Your task to perform on an android device: check data usage Image 0: 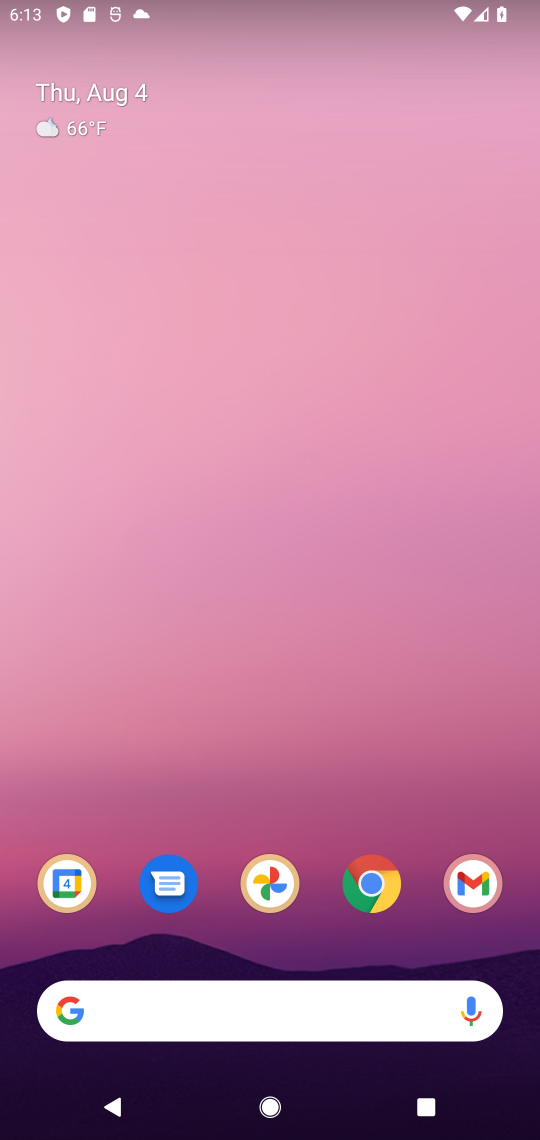
Step 0: drag from (197, 1045) to (355, 35)
Your task to perform on an android device: check data usage Image 1: 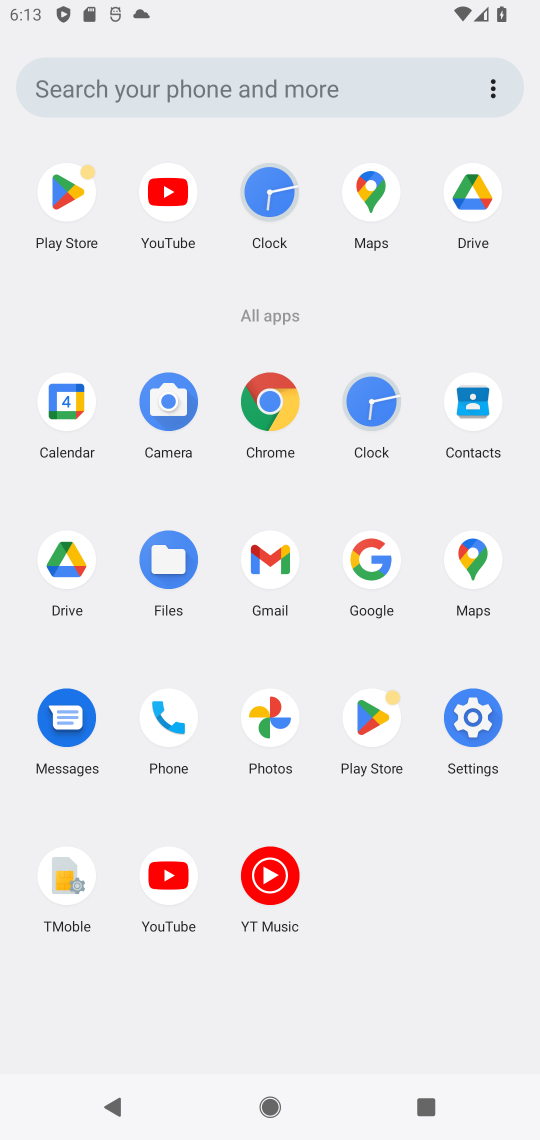
Step 1: click (478, 731)
Your task to perform on an android device: check data usage Image 2: 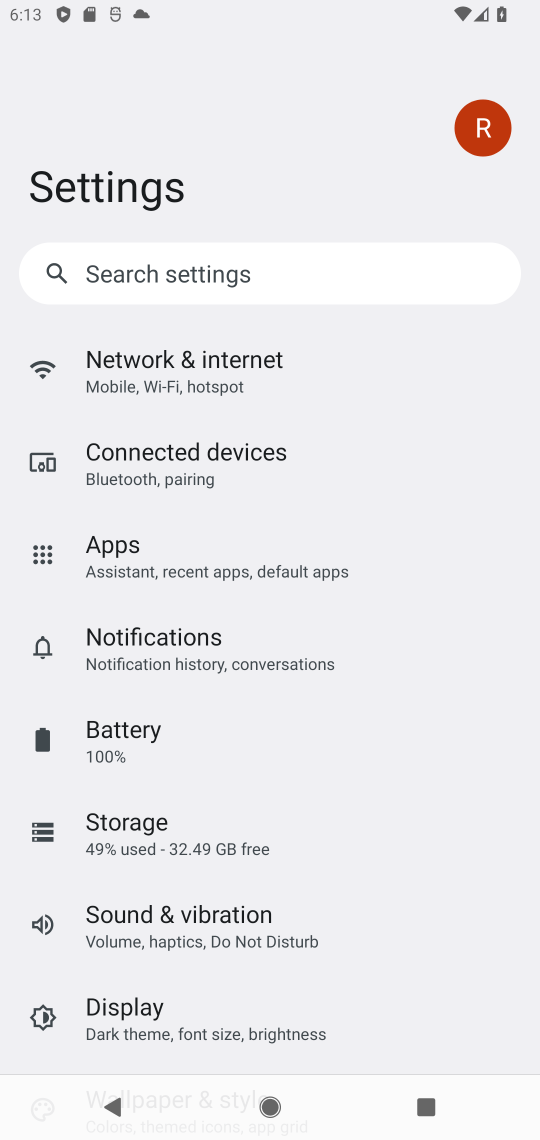
Step 2: click (217, 381)
Your task to perform on an android device: check data usage Image 3: 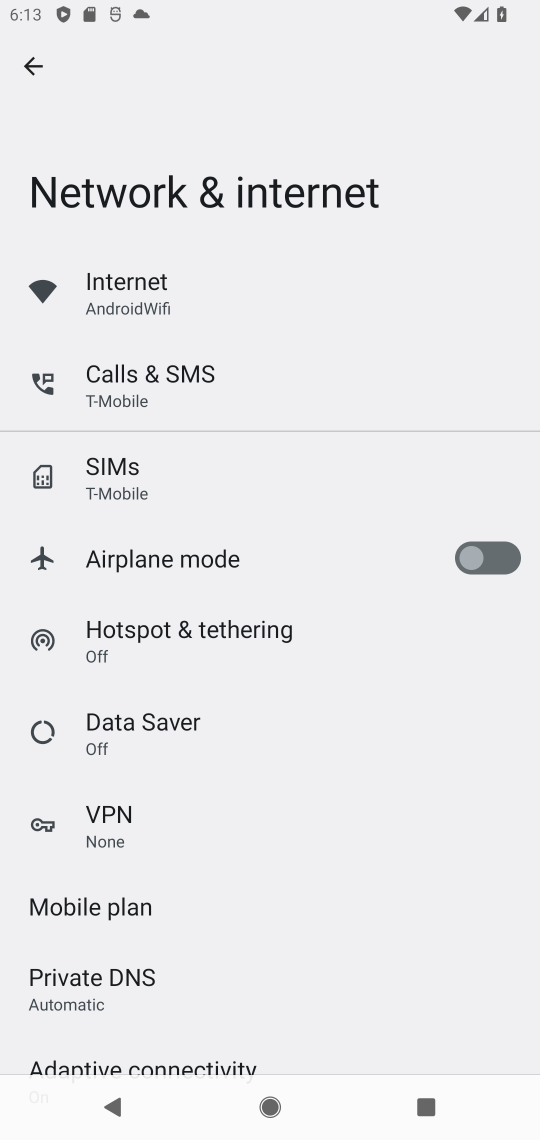
Step 3: click (281, 285)
Your task to perform on an android device: check data usage Image 4: 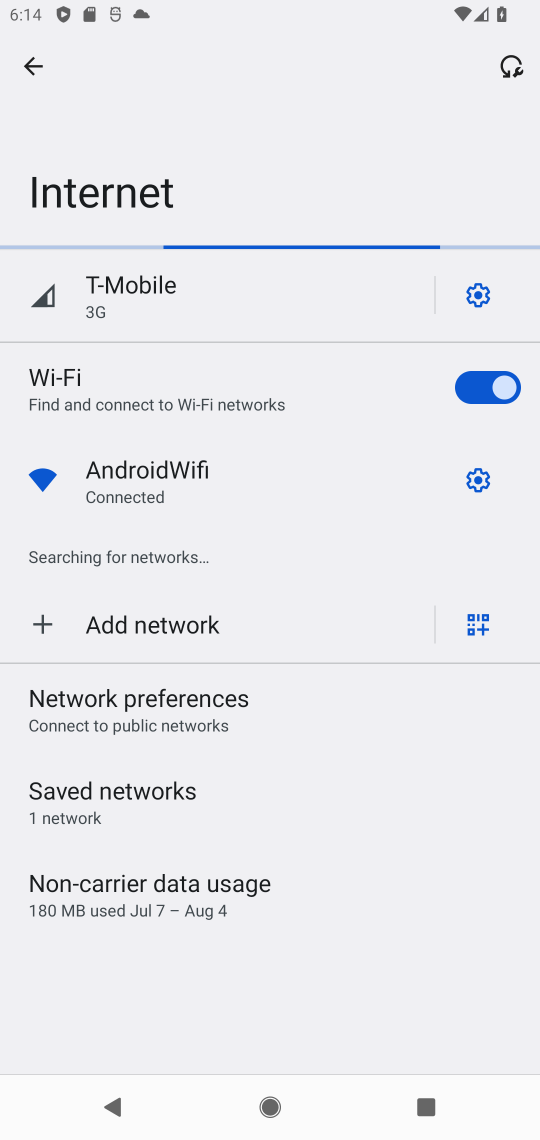
Step 4: task complete